Your task to perform on an android device: turn off priority inbox in the gmail app Image 0: 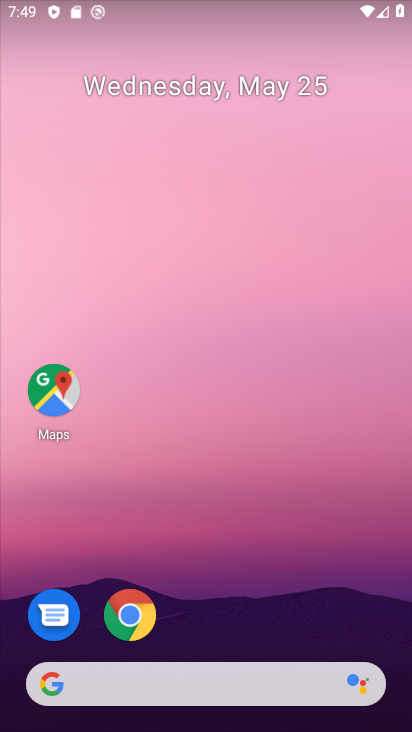
Step 0: press home button
Your task to perform on an android device: turn off priority inbox in the gmail app Image 1: 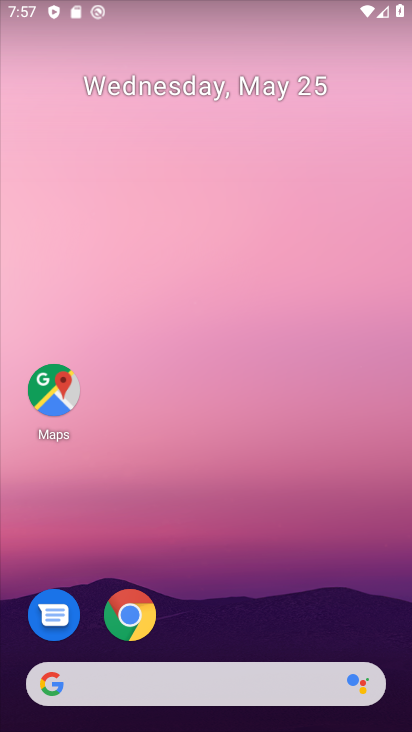
Step 1: drag from (291, 648) to (274, 21)
Your task to perform on an android device: turn off priority inbox in the gmail app Image 2: 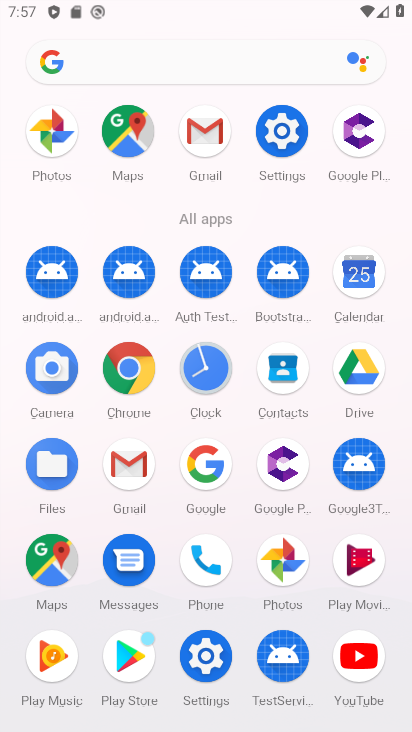
Step 2: click (238, 137)
Your task to perform on an android device: turn off priority inbox in the gmail app Image 3: 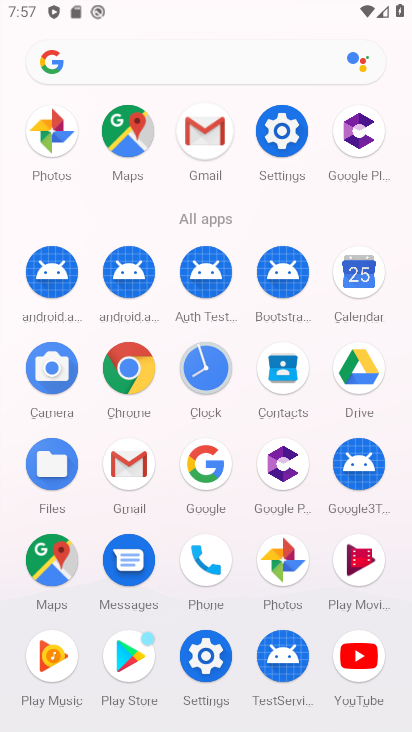
Step 3: click (205, 153)
Your task to perform on an android device: turn off priority inbox in the gmail app Image 4: 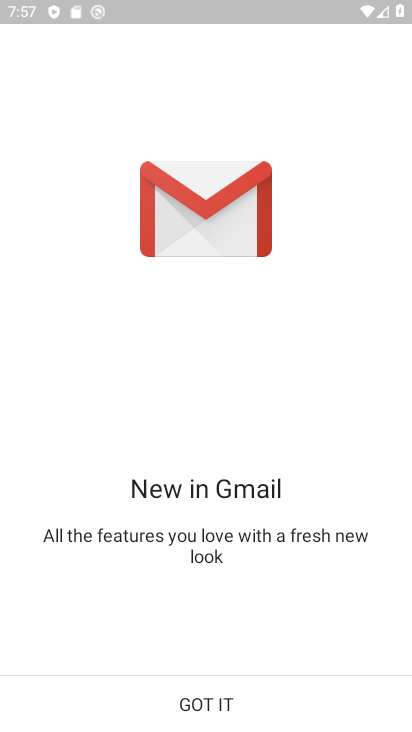
Step 4: click (153, 703)
Your task to perform on an android device: turn off priority inbox in the gmail app Image 5: 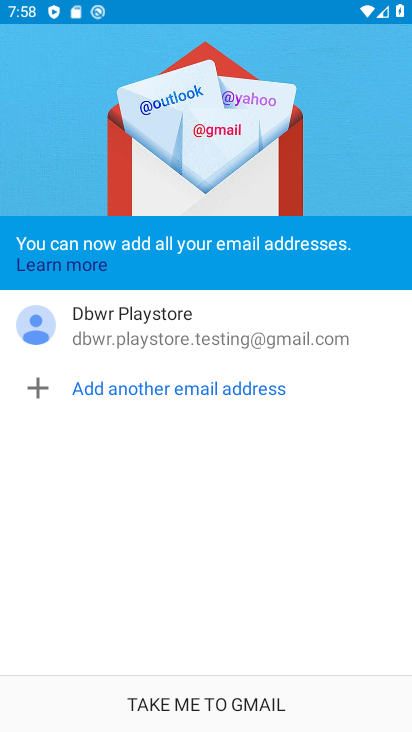
Step 5: click (161, 708)
Your task to perform on an android device: turn off priority inbox in the gmail app Image 6: 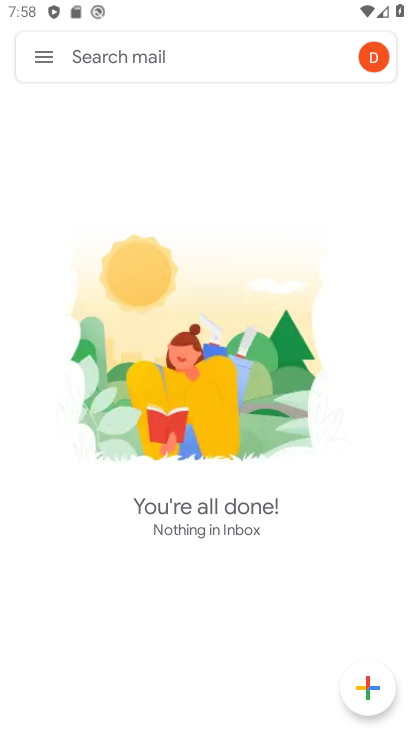
Step 6: click (51, 61)
Your task to perform on an android device: turn off priority inbox in the gmail app Image 7: 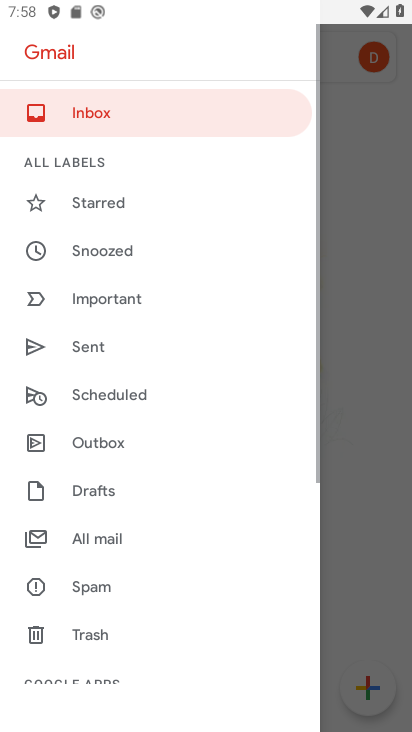
Step 7: drag from (74, 109) to (97, 15)
Your task to perform on an android device: turn off priority inbox in the gmail app Image 8: 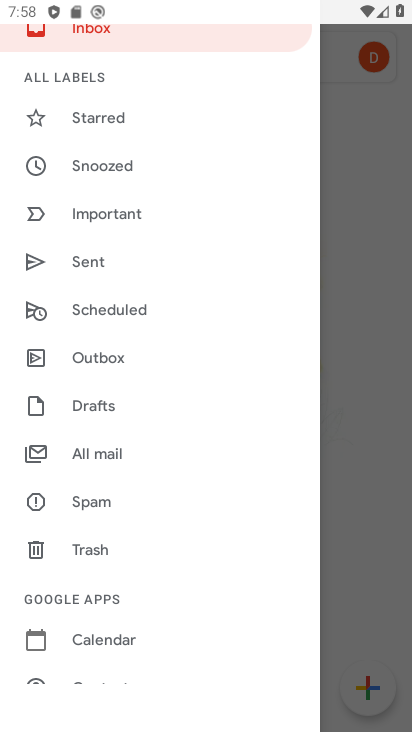
Step 8: drag from (190, 630) to (248, 34)
Your task to perform on an android device: turn off priority inbox in the gmail app Image 9: 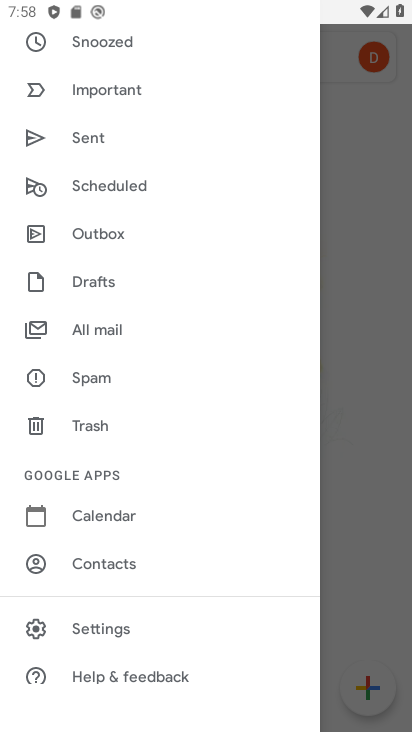
Step 9: click (113, 638)
Your task to perform on an android device: turn off priority inbox in the gmail app Image 10: 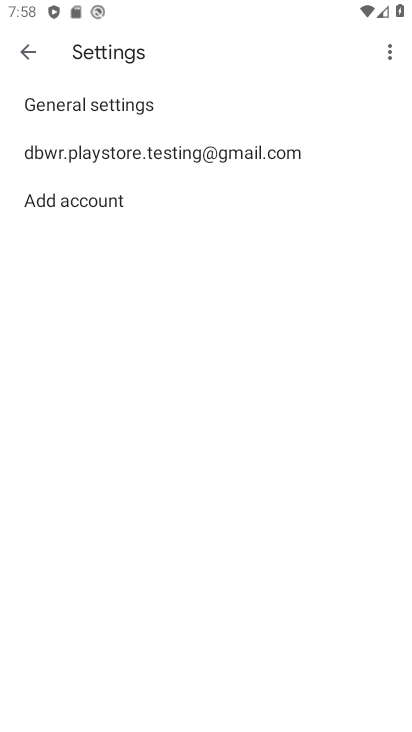
Step 10: click (69, 164)
Your task to perform on an android device: turn off priority inbox in the gmail app Image 11: 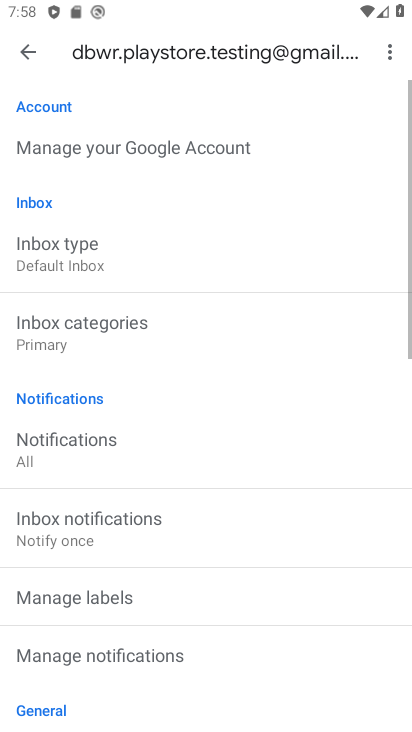
Step 11: click (84, 243)
Your task to perform on an android device: turn off priority inbox in the gmail app Image 12: 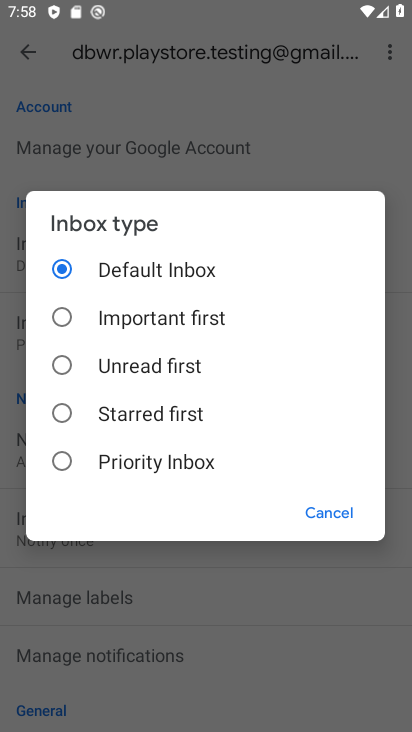
Step 12: click (129, 312)
Your task to perform on an android device: turn off priority inbox in the gmail app Image 13: 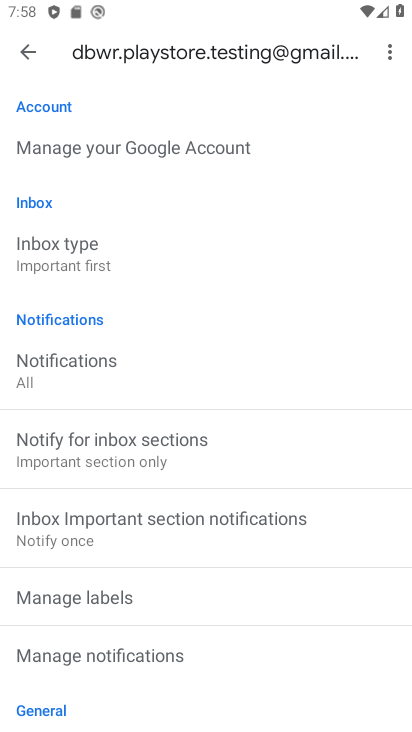
Step 13: task complete